Your task to perform on an android device: move an email to a new category in the gmail app Image 0: 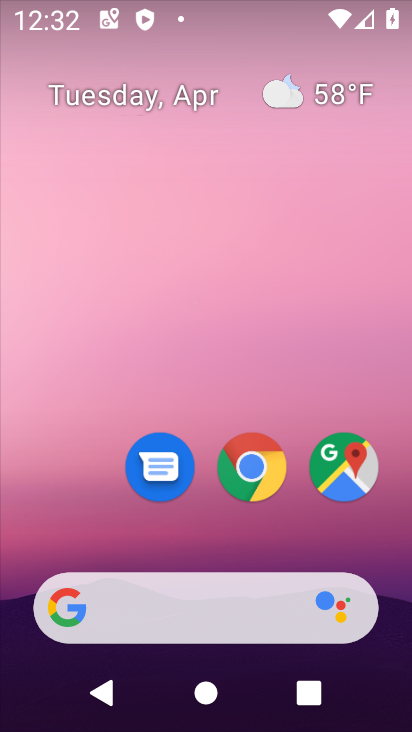
Step 0: drag from (182, 541) to (263, 21)
Your task to perform on an android device: move an email to a new category in the gmail app Image 1: 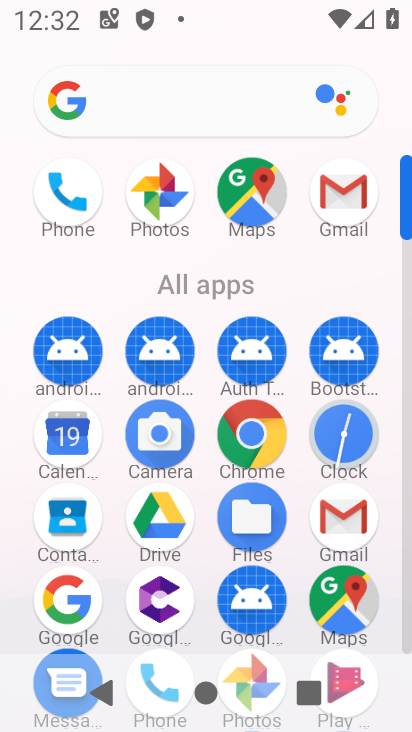
Step 1: click (353, 213)
Your task to perform on an android device: move an email to a new category in the gmail app Image 2: 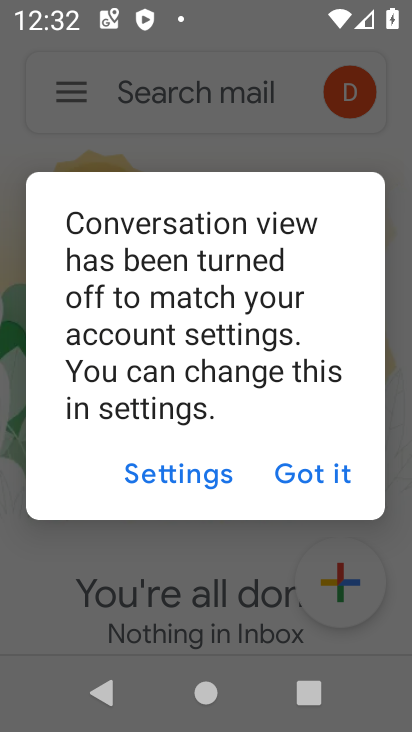
Step 2: click (321, 467)
Your task to perform on an android device: move an email to a new category in the gmail app Image 3: 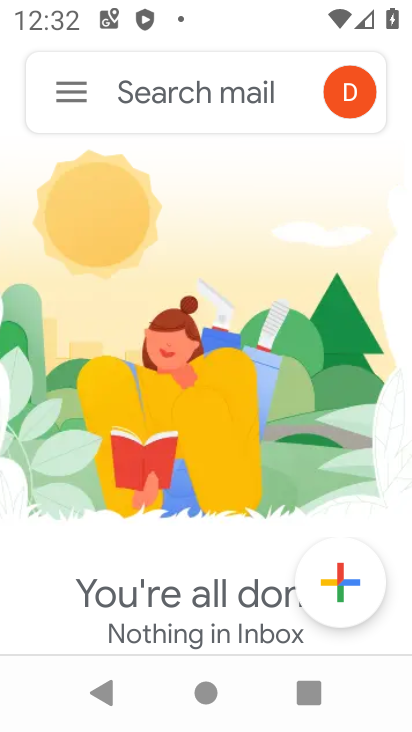
Step 3: task complete